Your task to perform on an android device: allow notifications from all sites in the chrome app Image 0: 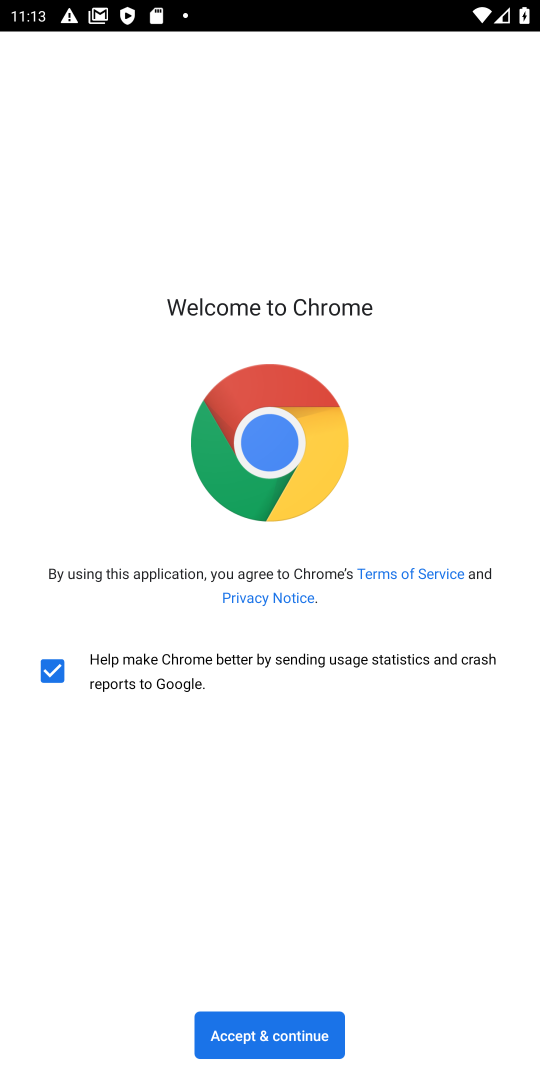
Step 0: press back button
Your task to perform on an android device: allow notifications from all sites in the chrome app Image 1: 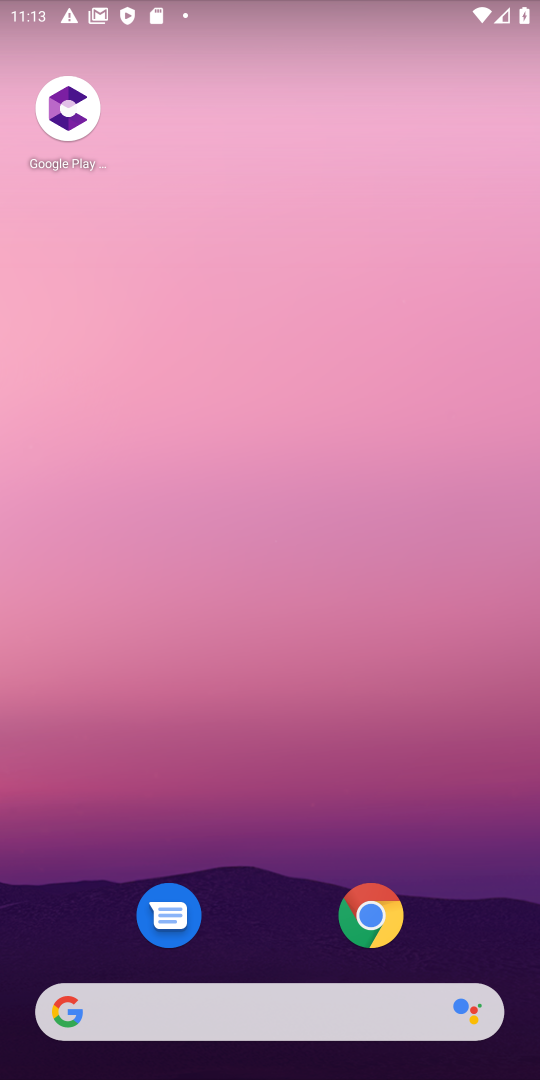
Step 1: drag from (264, 607) to (364, 98)
Your task to perform on an android device: allow notifications from all sites in the chrome app Image 2: 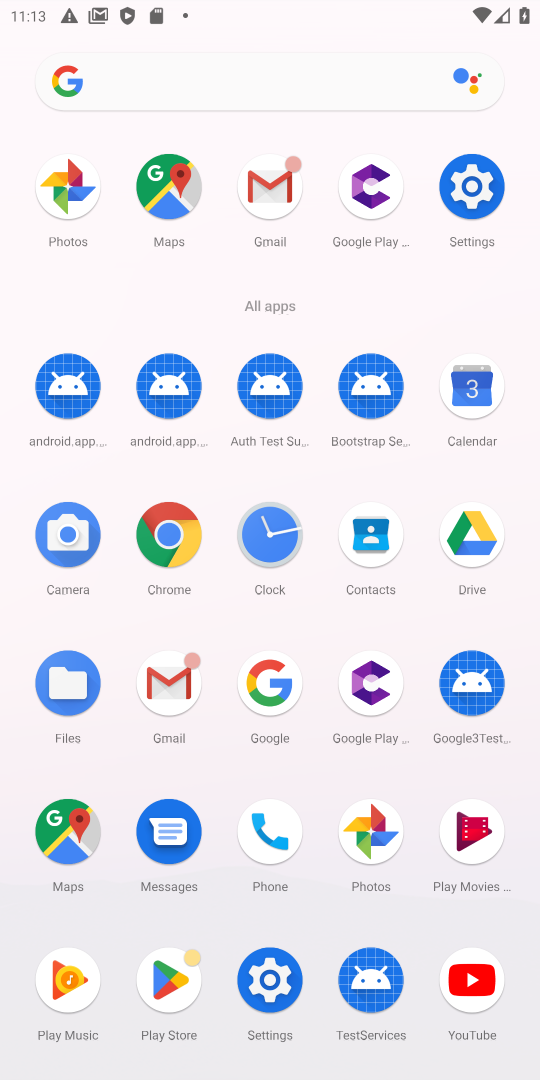
Step 2: click (159, 538)
Your task to perform on an android device: allow notifications from all sites in the chrome app Image 3: 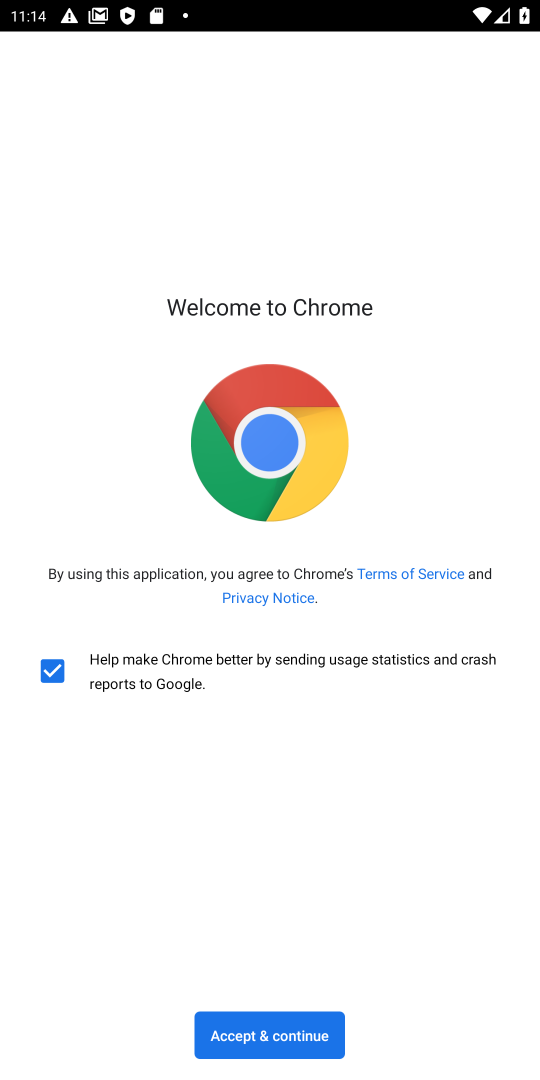
Step 3: click (252, 1032)
Your task to perform on an android device: allow notifications from all sites in the chrome app Image 4: 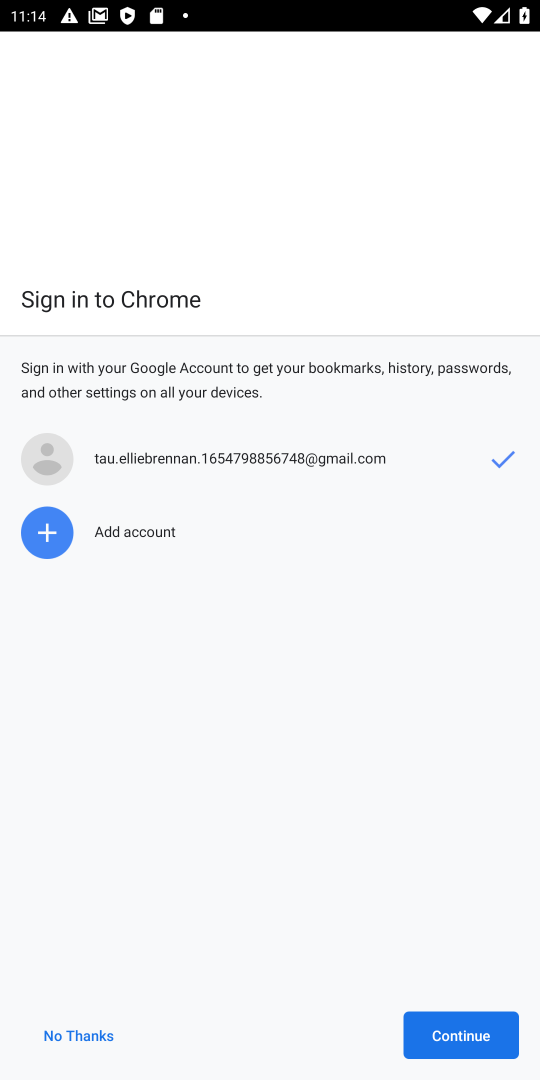
Step 4: click (445, 1046)
Your task to perform on an android device: allow notifications from all sites in the chrome app Image 5: 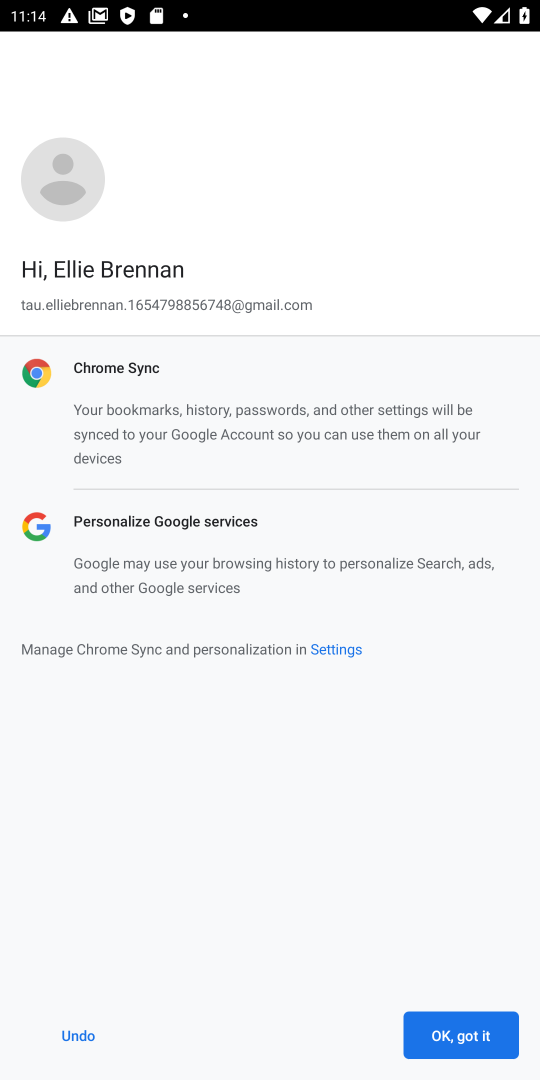
Step 5: click (445, 1046)
Your task to perform on an android device: allow notifications from all sites in the chrome app Image 6: 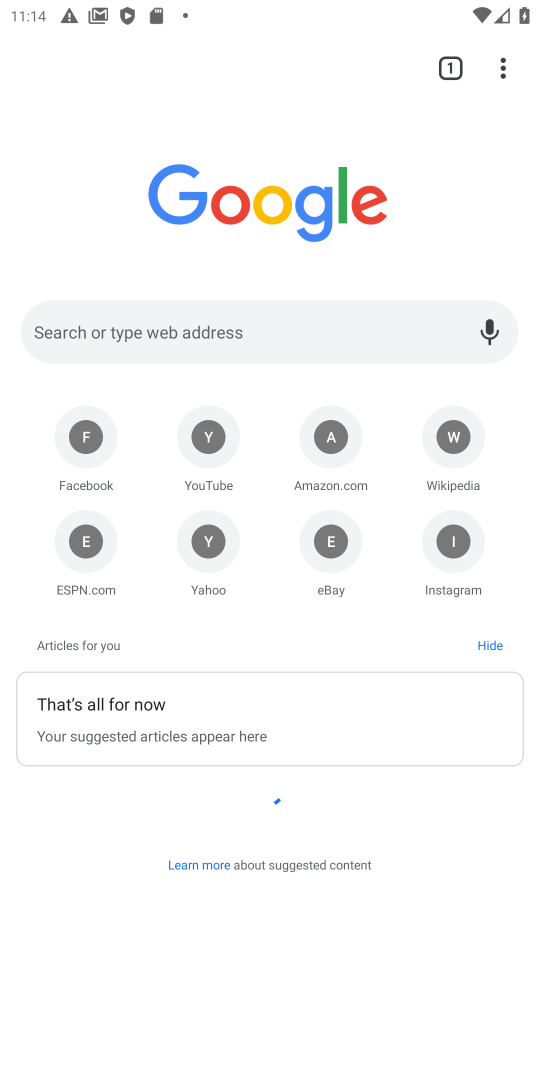
Step 6: click (501, 66)
Your task to perform on an android device: allow notifications from all sites in the chrome app Image 7: 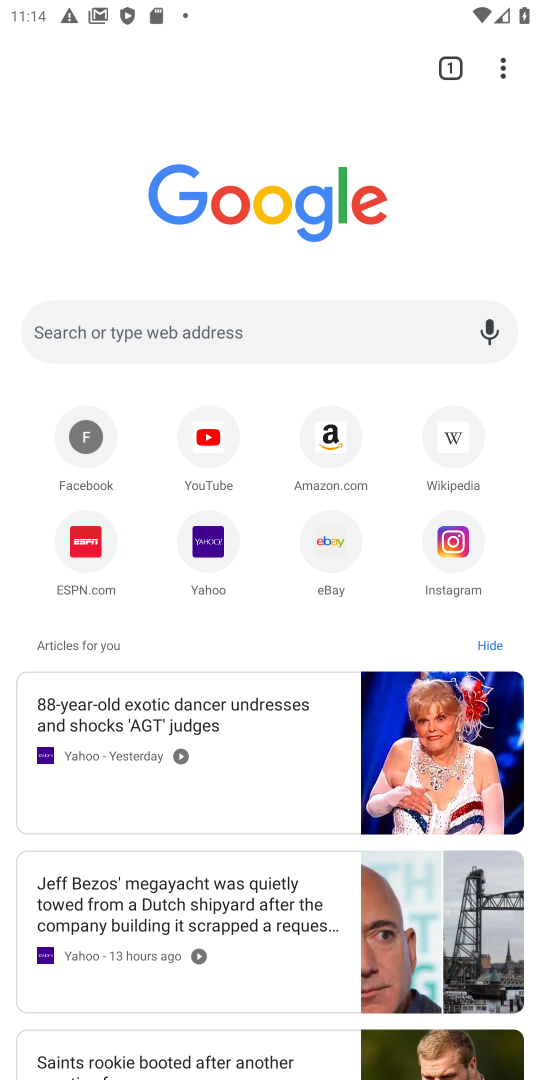
Step 7: click (507, 66)
Your task to perform on an android device: allow notifications from all sites in the chrome app Image 8: 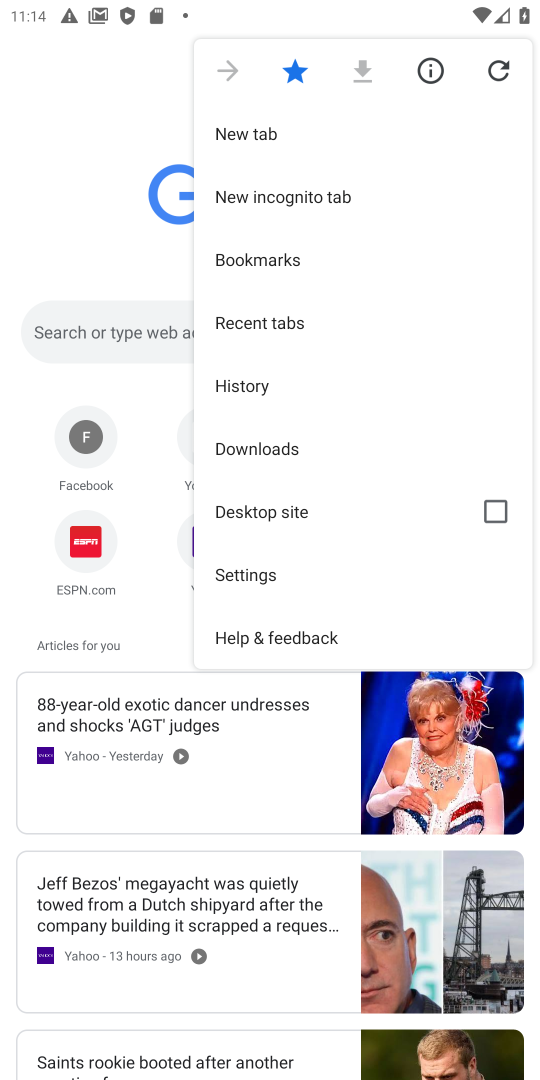
Step 8: click (222, 571)
Your task to perform on an android device: allow notifications from all sites in the chrome app Image 9: 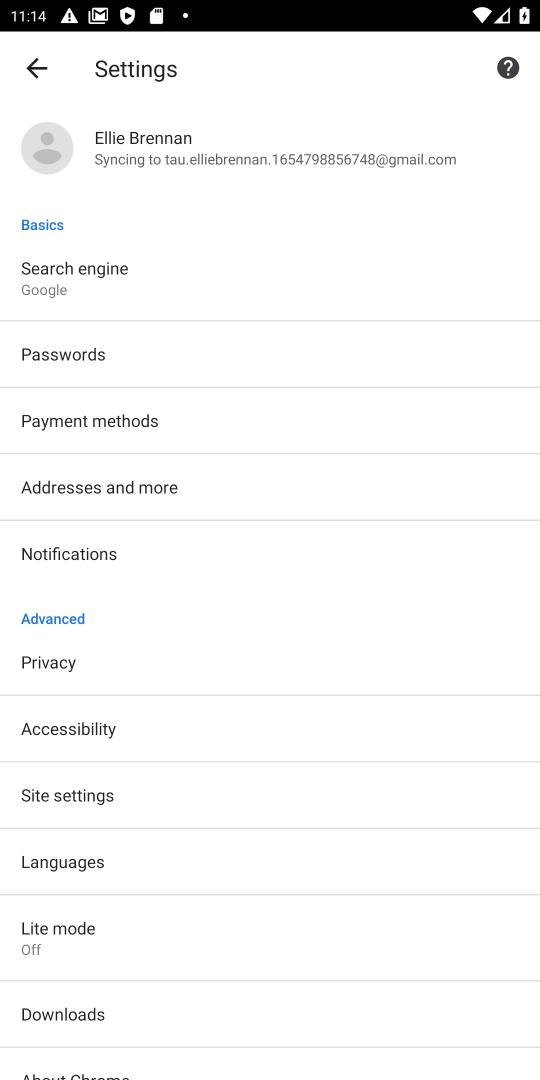
Step 9: click (103, 550)
Your task to perform on an android device: allow notifications from all sites in the chrome app Image 10: 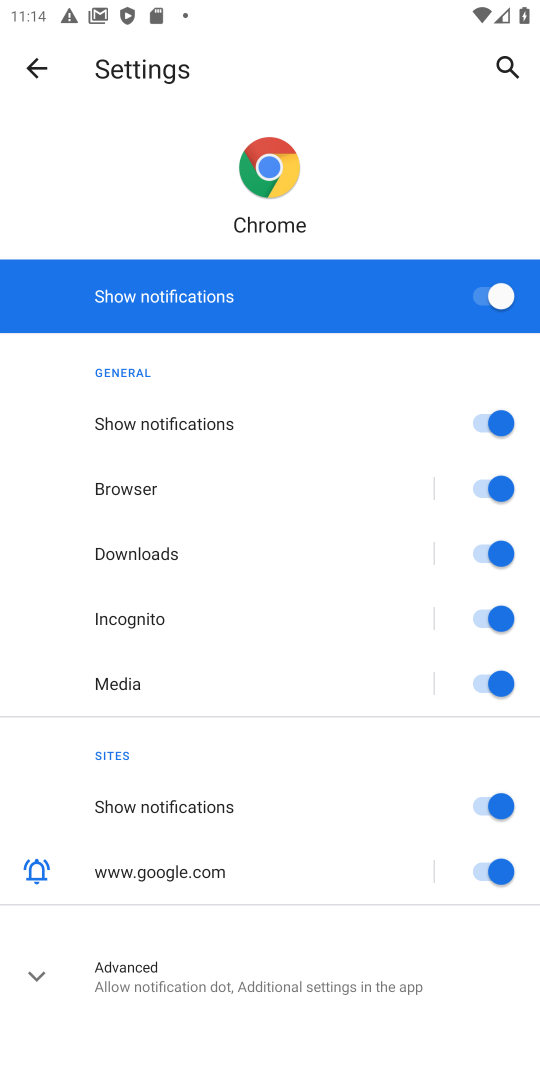
Step 10: click (29, 74)
Your task to perform on an android device: allow notifications from all sites in the chrome app Image 11: 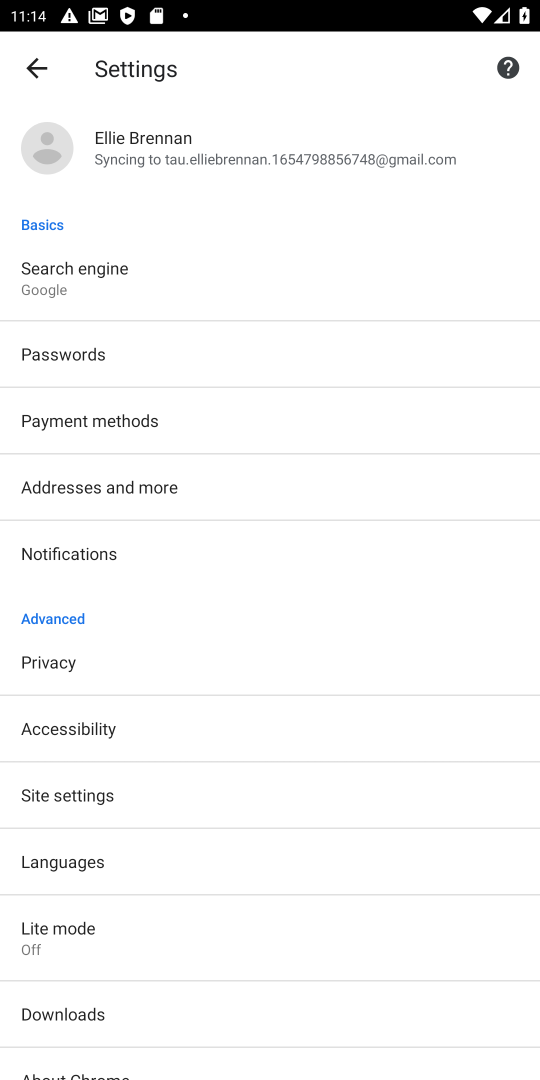
Step 11: click (44, 808)
Your task to perform on an android device: allow notifications from all sites in the chrome app Image 12: 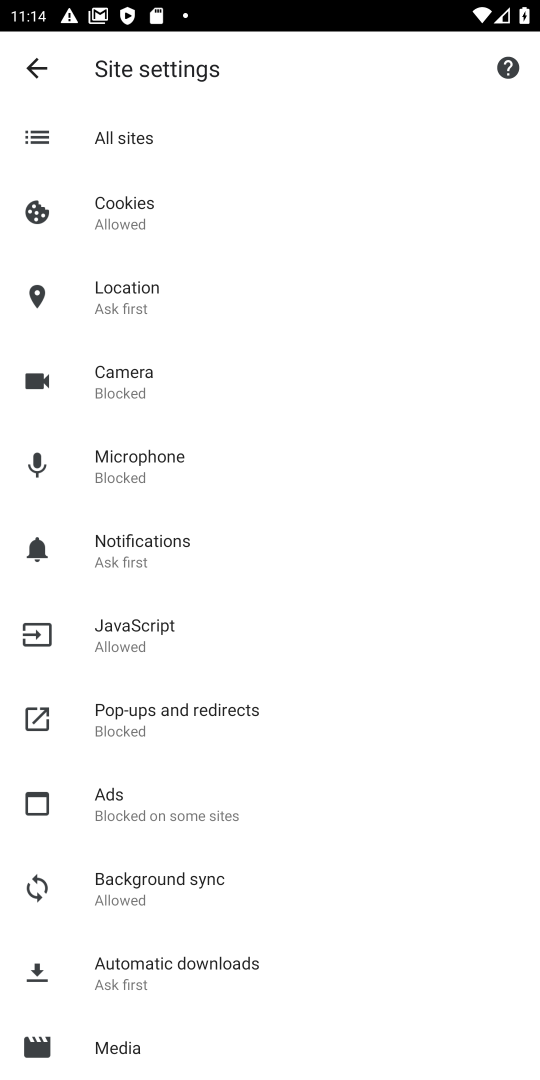
Step 12: click (139, 141)
Your task to perform on an android device: allow notifications from all sites in the chrome app Image 13: 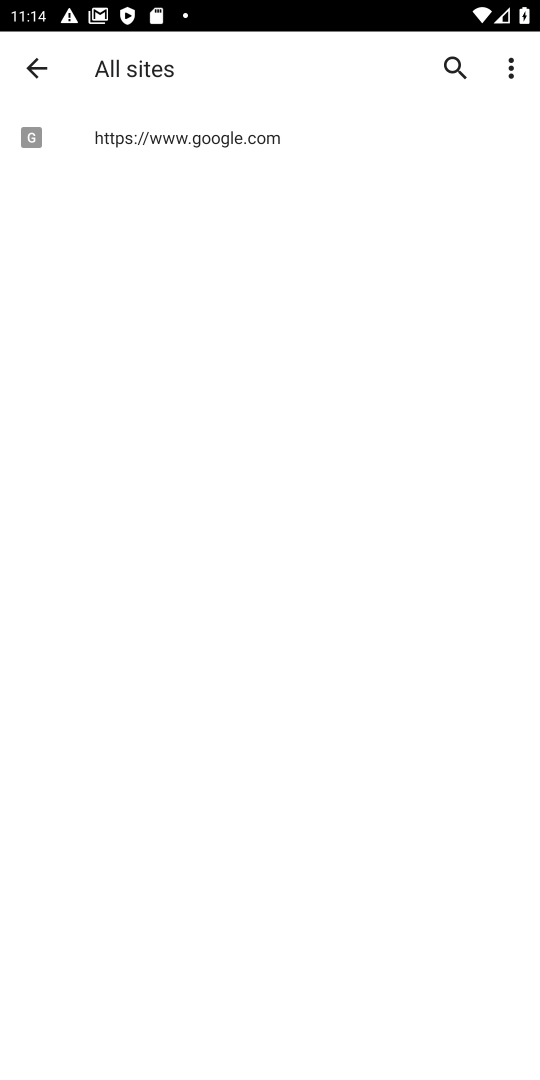
Step 13: click (158, 143)
Your task to perform on an android device: allow notifications from all sites in the chrome app Image 14: 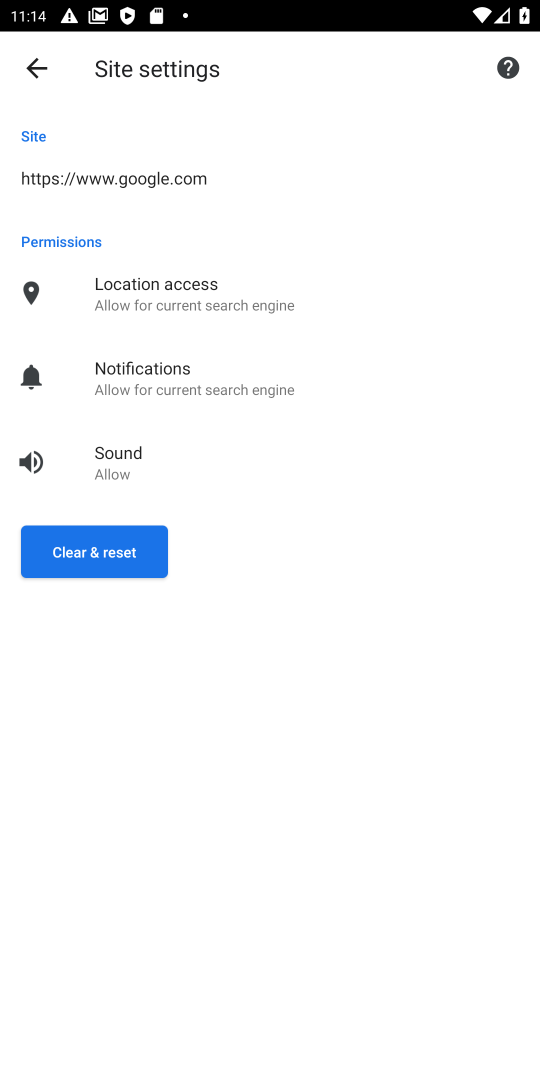
Step 14: click (124, 374)
Your task to perform on an android device: allow notifications from all sites in the chrome app Image 15: 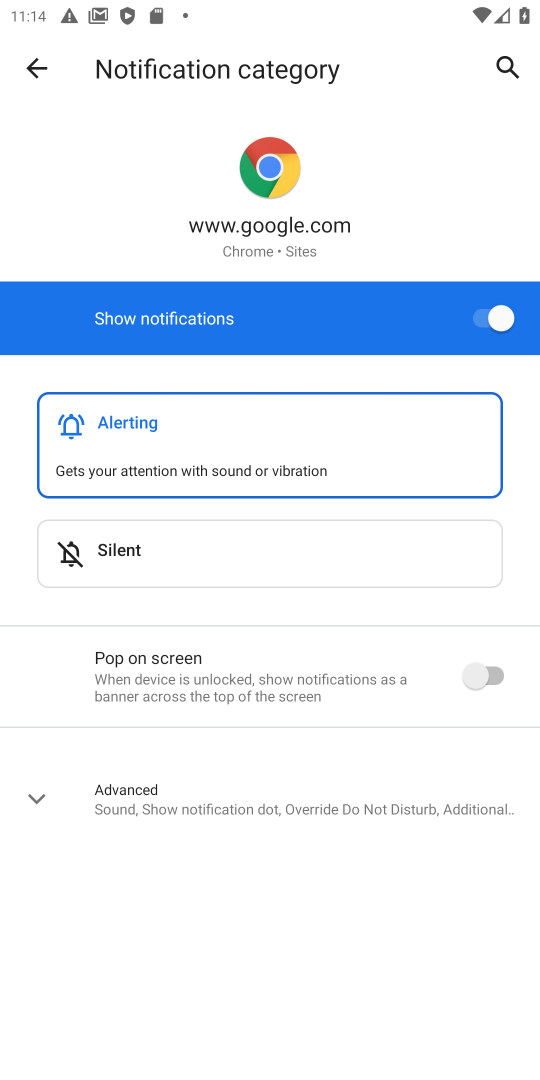
Step 15: task complete